Your task to perform on an android device: Open Youtube and go to "Your channel" Image 0: 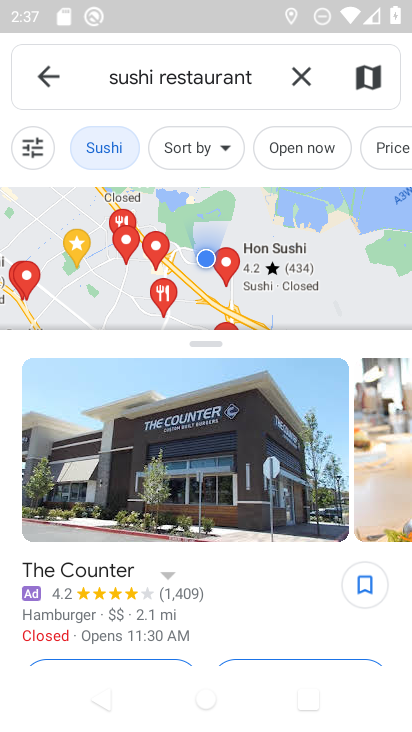
Step 0: press home button
Your task to perform on an android device: Open Youtube and go to "Your channel" Image 1: 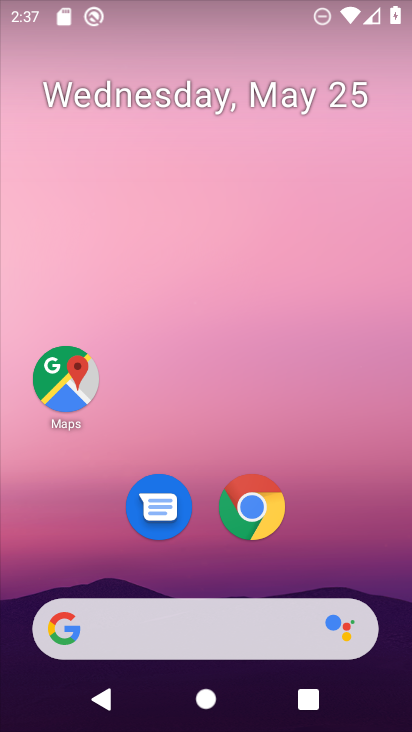
Step 1: drag from (267, 642) to (286, 331)
Your task to perform on an android device: Open Youtube and go to "Your channel" Image 2: 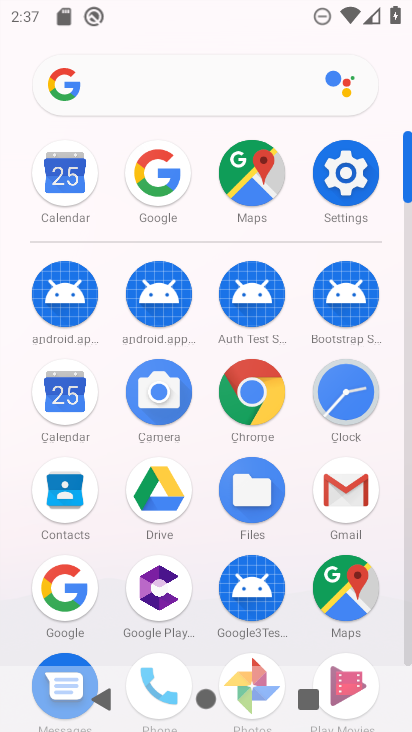
Step 2: drag from (281, 553) to (303, 317)
Your task to perform on an android device: Open Youtube and go to "Your channel" Image 3: 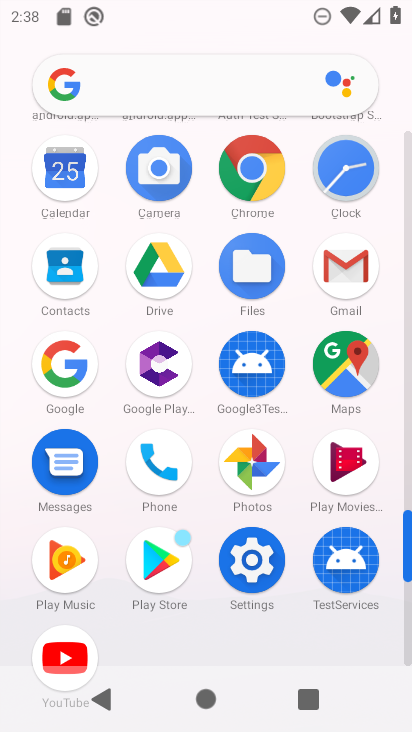
Step 3: click (79, 646)
Your task to perform on an android device: Open Youtube and go to "Your channel" Image 4: 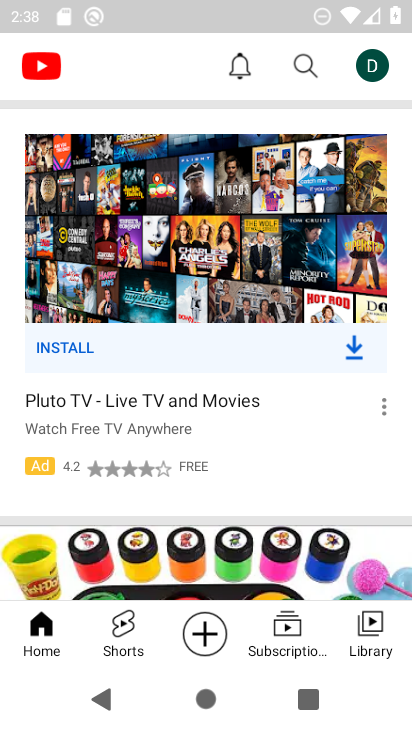
Step 4: click (369, 76)
Your task to perform on an android device: Open Youtube and go to "Your channel" Image 5: 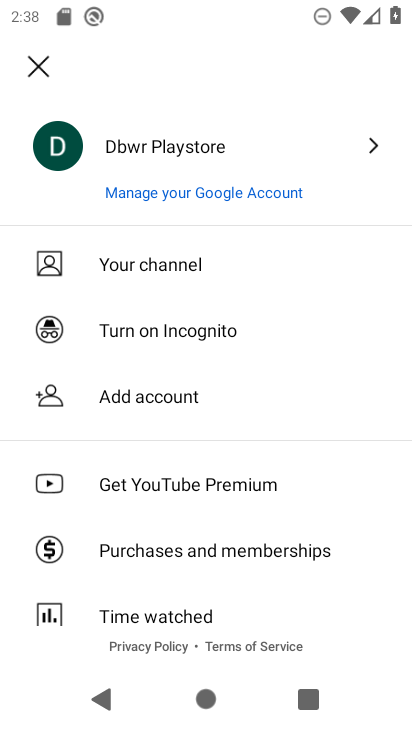
Step 5: click (168, 266)
Your task to perform on an android device: Open Youtube and go to "Your channel" Image 6: 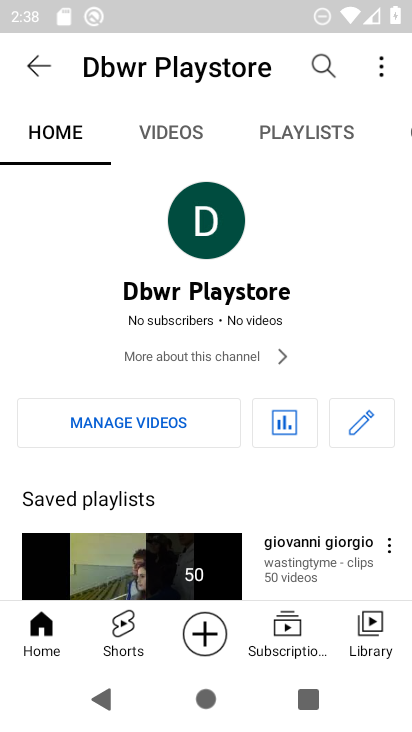
Step 6: task complete